Your task to perform on an android device: turn notification dots off Image 0: 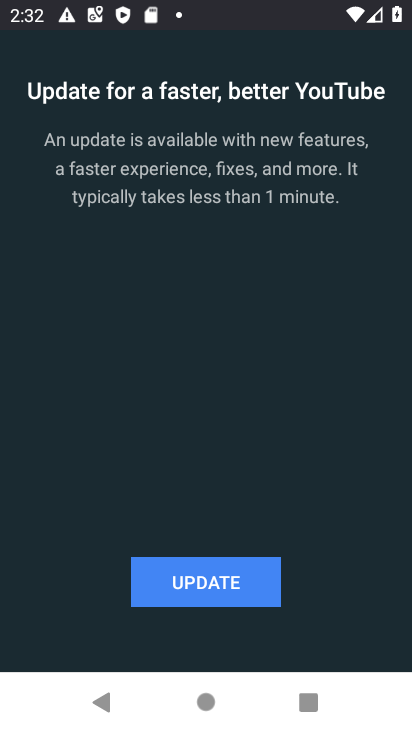
Step 0: press home button
Your task to perform on an android device: turn notification dots off Image 1: 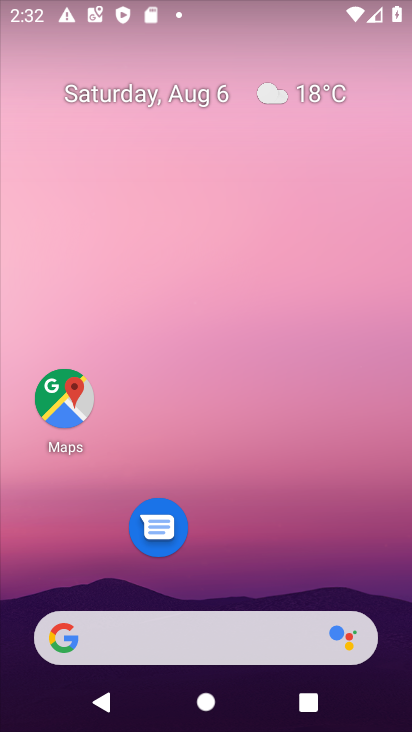
Step 1: drag from (180, 457) to (143, 192)
Your task to perform on an android device: turn notification dots off Image 2: 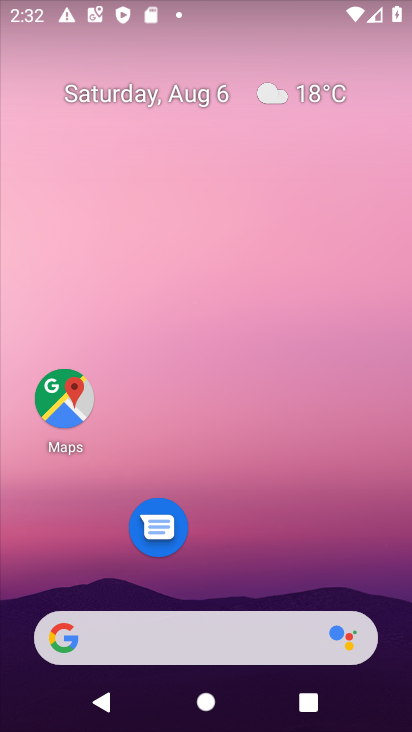
Step 2: drag from (256, 604) to (236, 74)
Your task to perform on an android device: turn notification dots off Image 3: 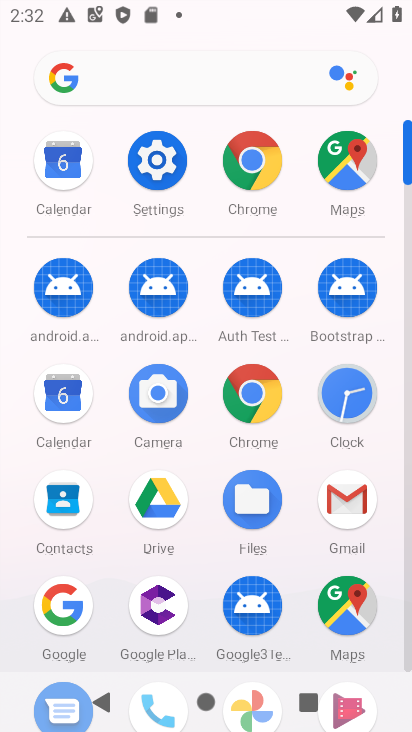
Step 3: click (155, 174)
Your task to perform on an android device: turn notification dots off Image 4: 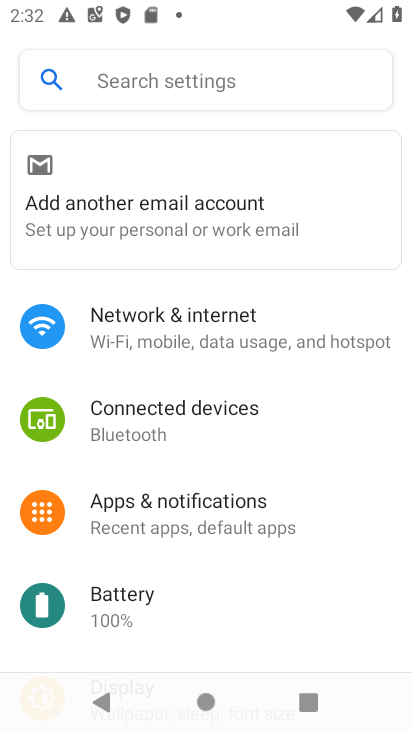
Step 4: click (216, 510)
Your task to perform on an android device: turn notification dots off Image 5: 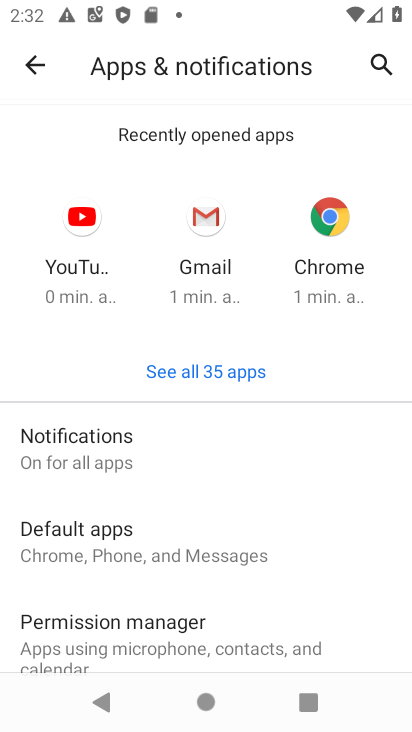
Step 5: click (201, 456)
Your task to perform on an android device: turn notification dots off Image 6: 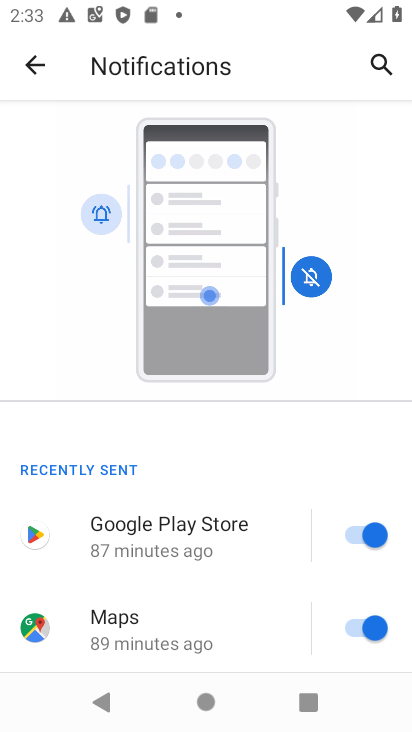
Step 6: drag from (103, 615) to (124, 56)
Your task to perform on an android device: turn notification dots off Image 7: 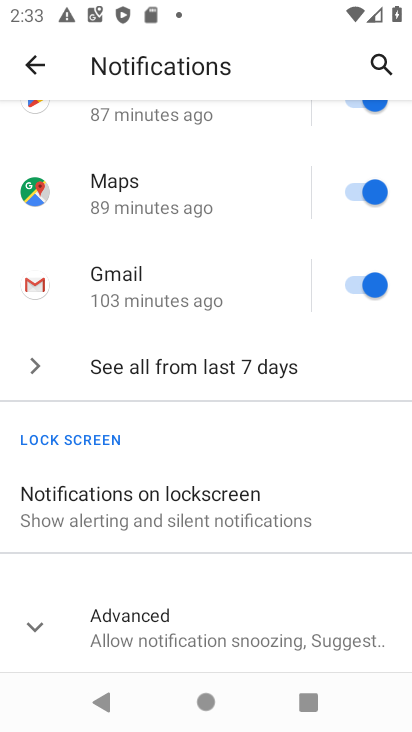
Step 7: click (197, 618)
Your task to perform on an android device: turn notification dots off Image 8: 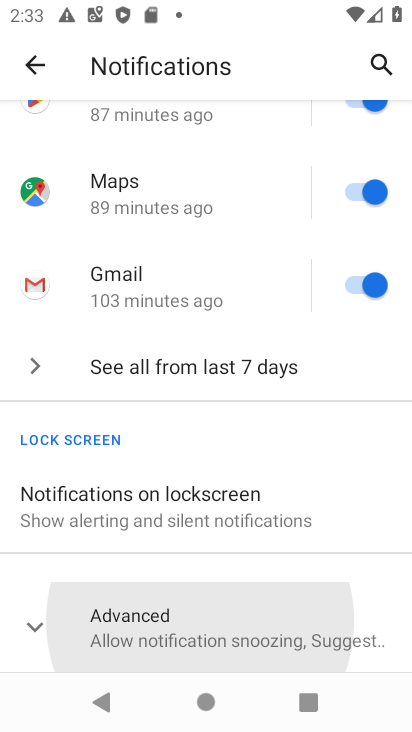
Step 8: drag from (194, 612) to (167, 139)
Your task to perform on an android device: turn notification dots off Image 9: 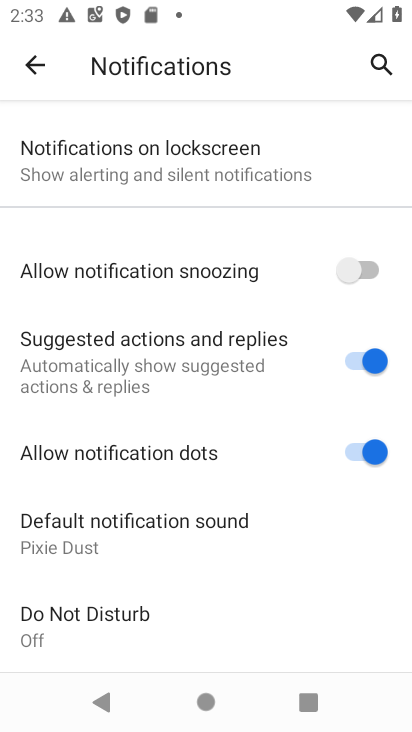
Step 9: click (374, 585)
Your task to perform on an android device: turn notification dots off Image 10: 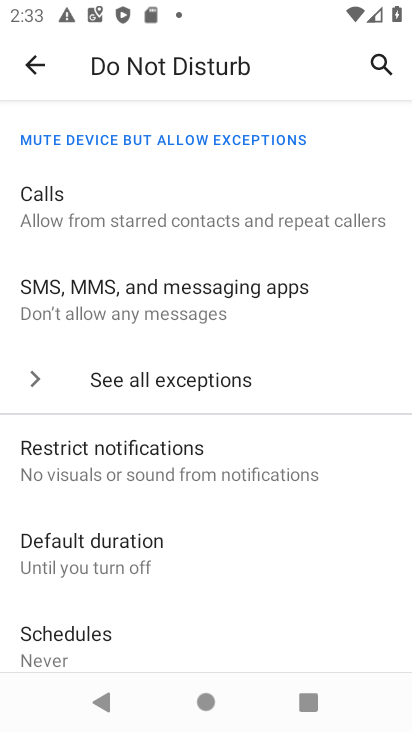
Step 10: press back button
Your task to perform on an android device: turn notification dots off Image 11: 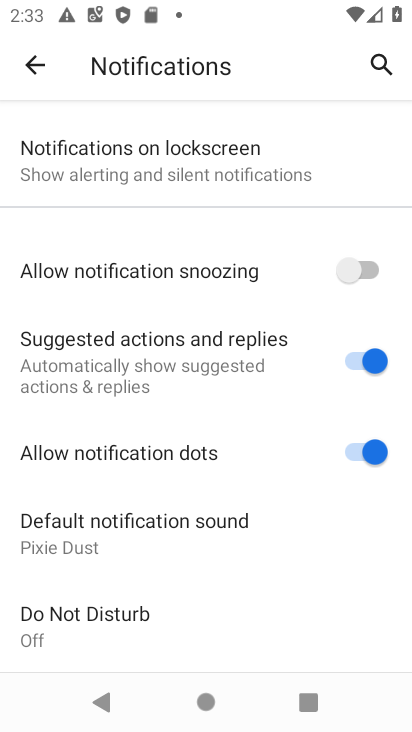
Step 11: click (364, 446)
Your task to perform on an android device: turn notification dots off Image 12: 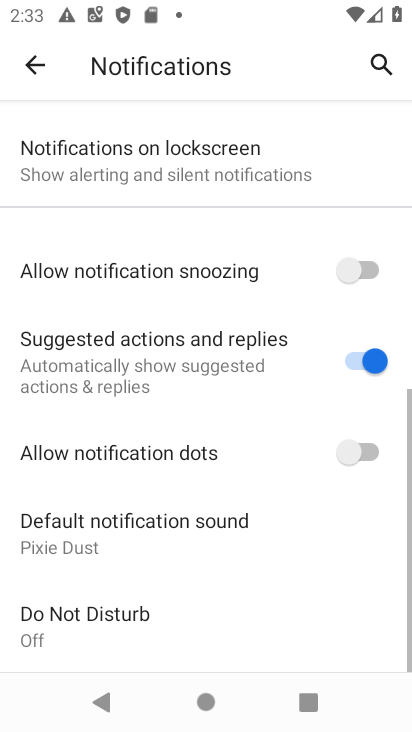
Step 12: task complete